Your task to perform on an android device: Search for Italian restaurants on Maps Image 0: 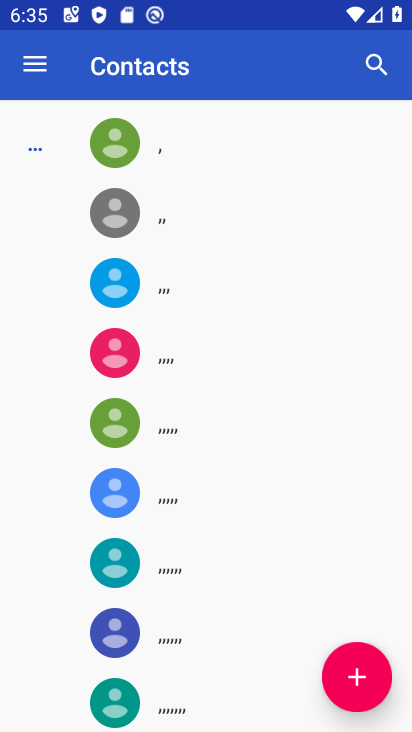
Step 0: press back button
Your task to perform on an android device: Search for Italian restaurants on Maps Image 1: 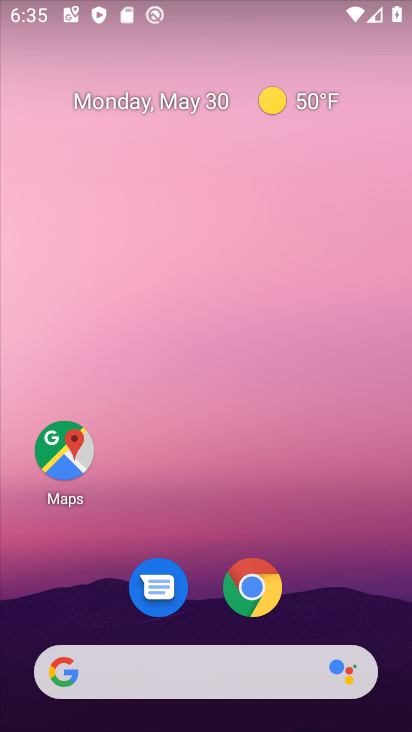
Step 1: drag from (319, 602) to (251, 40)
Your task to perform on an android device: Search for Italian restaurants on Maps Image 2: 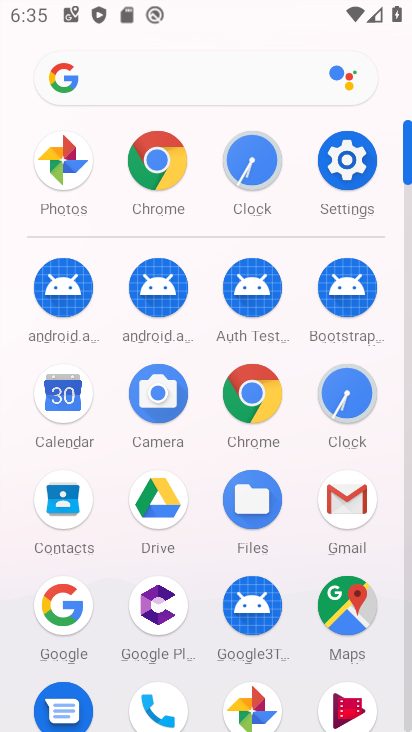
Step 2: click (348, 601)
Your task to perform on an android device: Search for Italian restaurants on Maps Image 3: 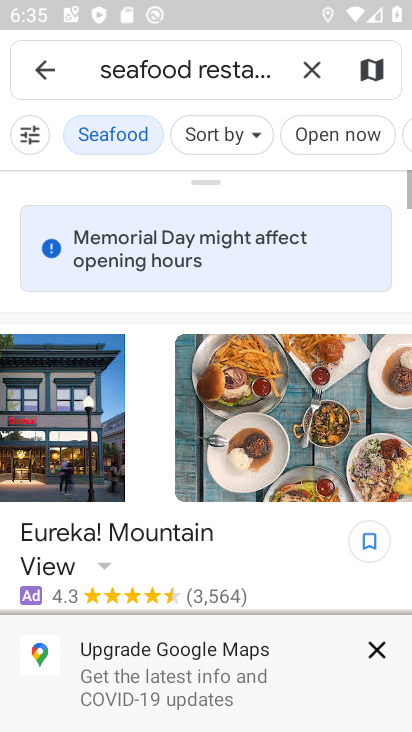
Step 3: click (299, 70)
Your task to perform on an android device: Search for Italian restaurants on Maps Image 4: 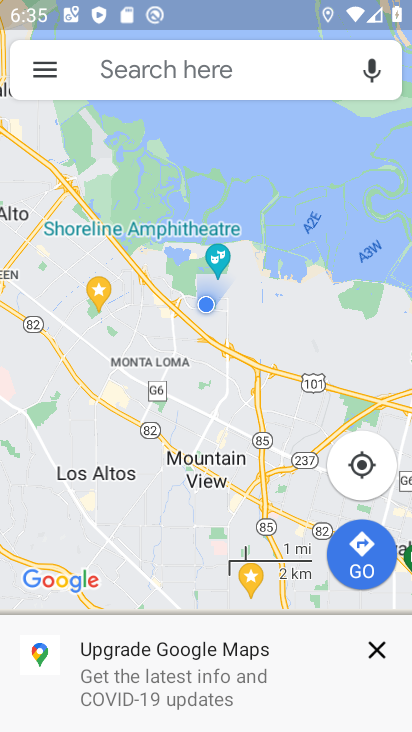
Step 4: click (243, 63)
Your task to perform on an android device: Search for Italian restaurants on Maps Image 5: 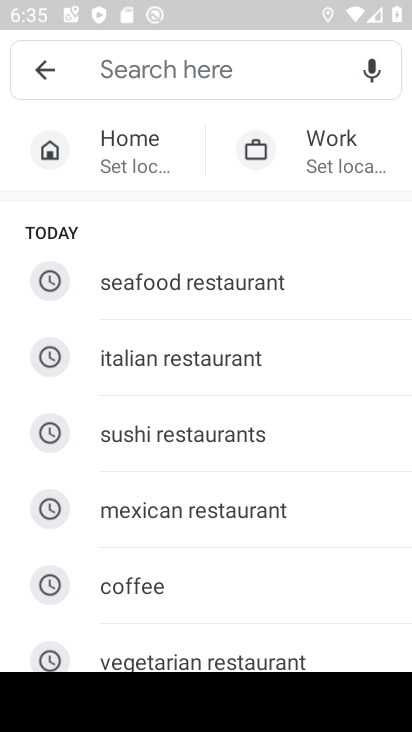
Step 5: click (179, 369)
Your task to perform on an android device: Search for Italian restaurants on Maps Image 6: 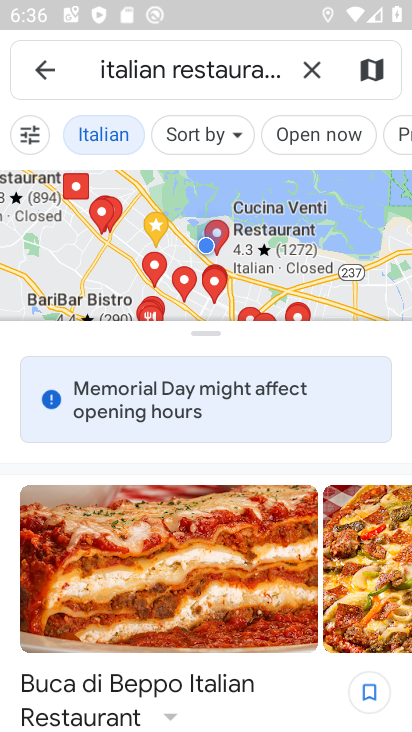
Step 6: task complete